Your task to perform on an android device: Go to accessibility settings Image 0: 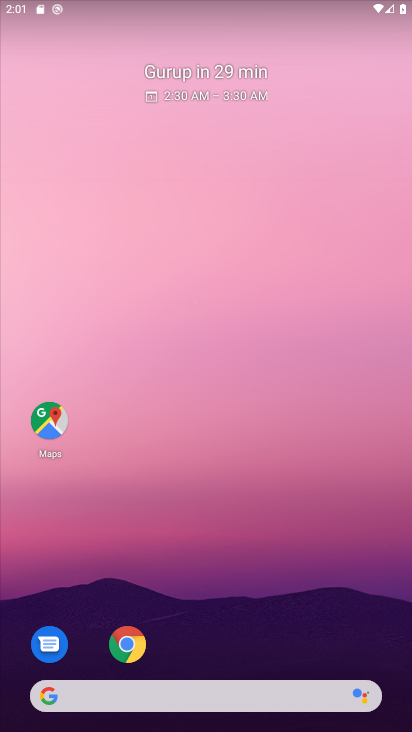
Step 0: drag from (317, 677) to (205, 191)
Your task to perform on an android device: Go to accessibility settings Image 1: 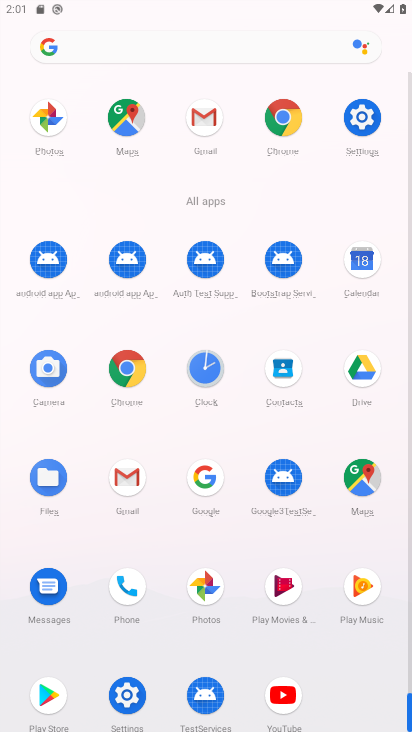
Step 1: click (361, 122)
Your task to perform on an android device: Go to accessibility settings Image 2: 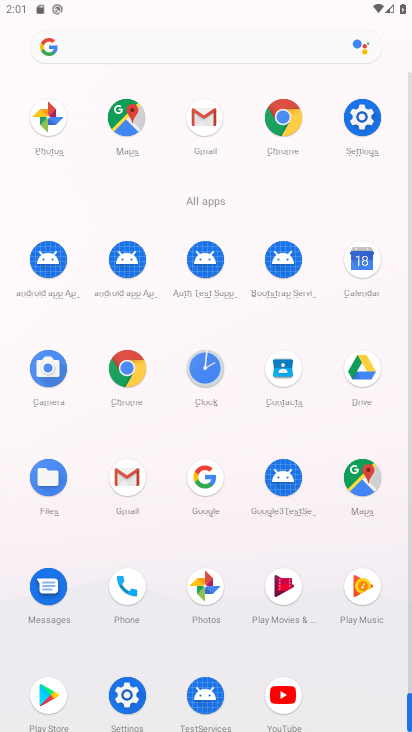
Step 2: click (367, 129)
Your task to perform on an android device: Go to accessibility settings Image 3: 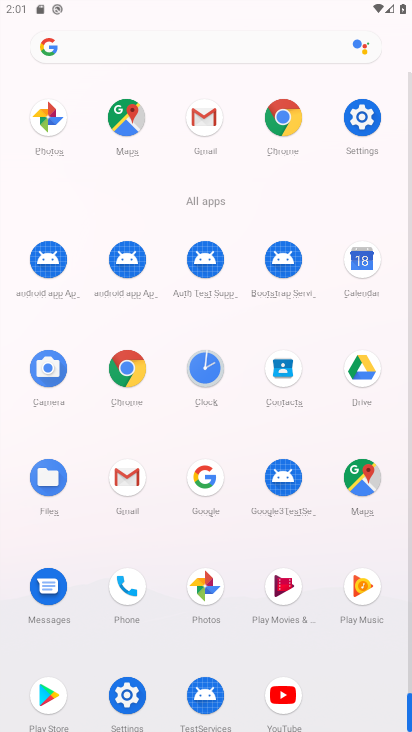
Step 3: click (367, 129)
Your task to perform on an android device: Go to accessibility settings Image 4: 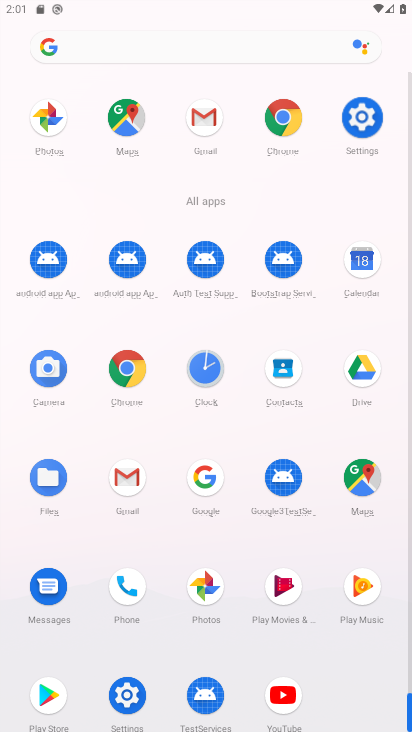
Step 4: click (367, 129)
Your task to perform on an android device: Go to accessibility settings Image 5: 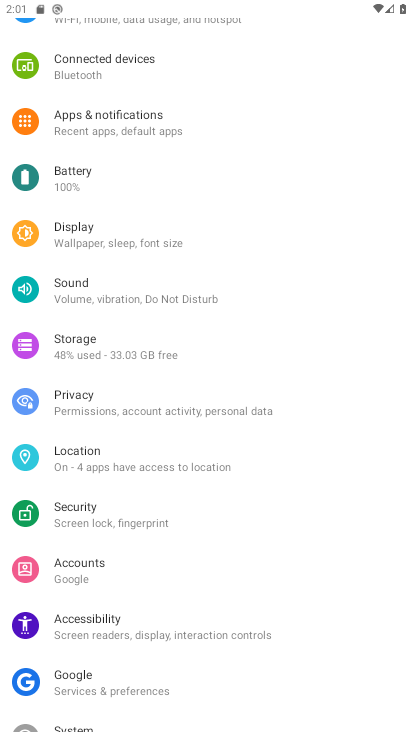
Step 5: click (91, 626)
Your task to perform on an android device: Go to accessibility settings Image 6: 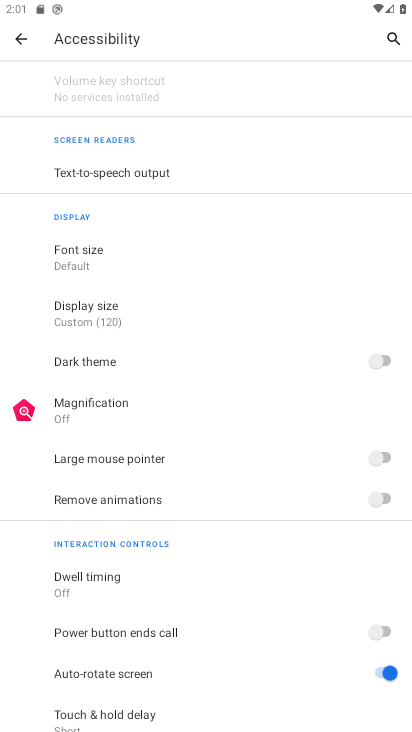
Step 6: task complete